Your task to perform on an android device: change alarm snooze length Image 0: 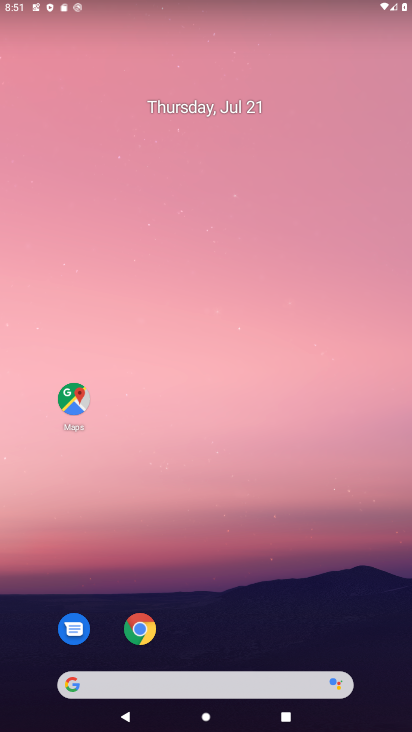
Step 0: drag from (196, 662) to (223, 6)
Your task to perform on an android device: change alarm snooze length Image 1: 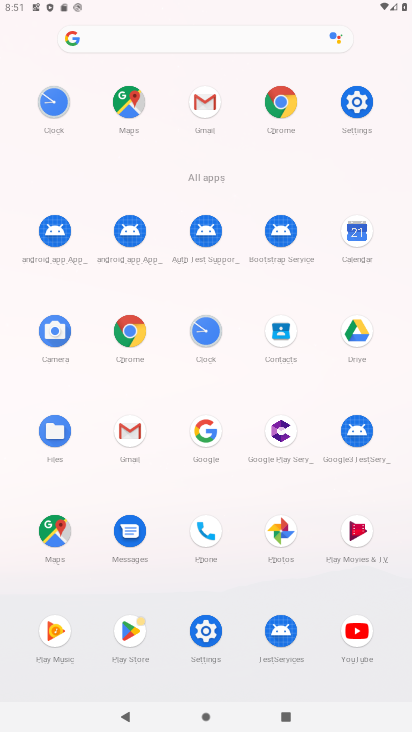
Step 1: click (368, 102)
Your task to perform on an android device: change alarm snooze length Image 2: 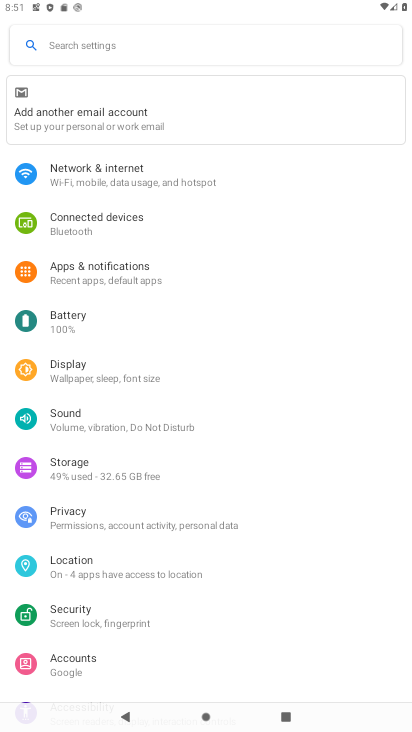
Step 2: press back button
Your task to perform on an android device: change alarm snooze length Image 3: 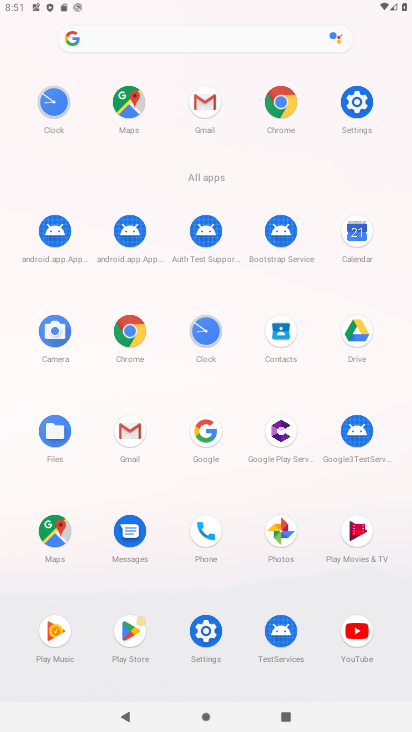
Step 3: click (191, 345)
Your task to perform on an android device: change alarm snooze length Image 4: 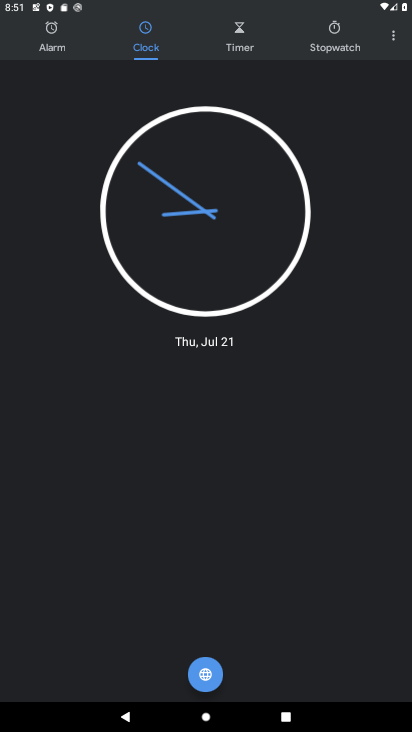
Step 4: click (396, 51)
Your task to perform on an android device: change alarm snooze length Image 5: 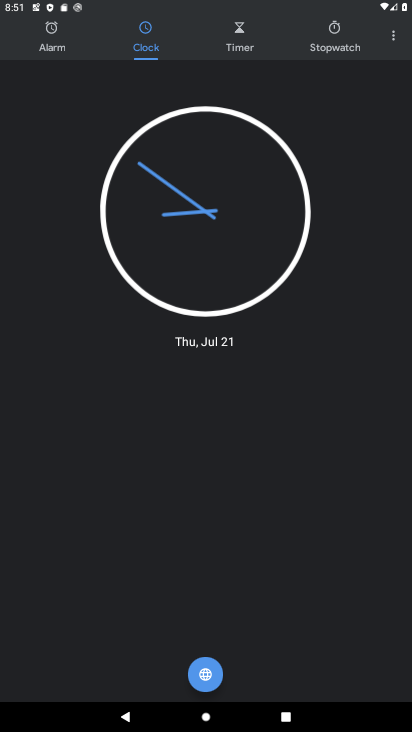
Step 5: click (396, 38)
Your task to perform on an android device: change alarm snooze length Image 6: 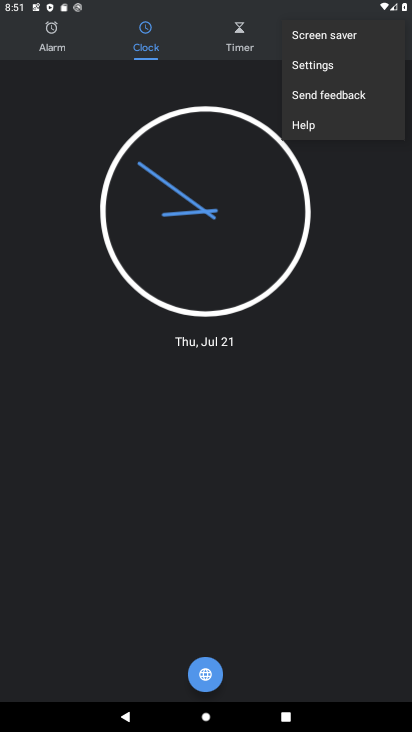
Step 6: click (346, 65)
Your task to perform on an android device: change alarm snooze length Image 7: 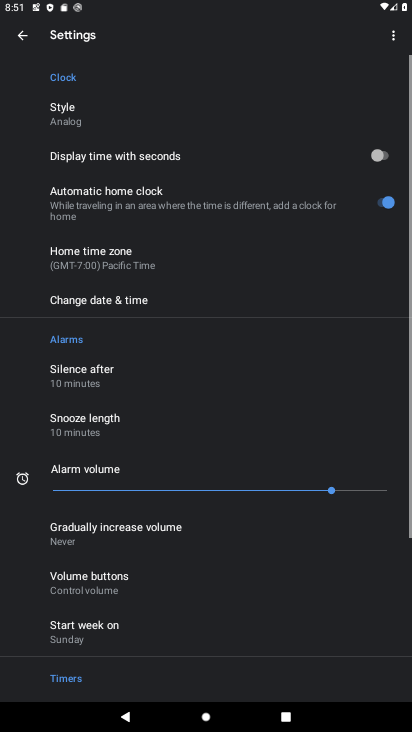
Step 7: click (346, 65)
Your task to perform on an android device: change alarm snooze length Image 8: 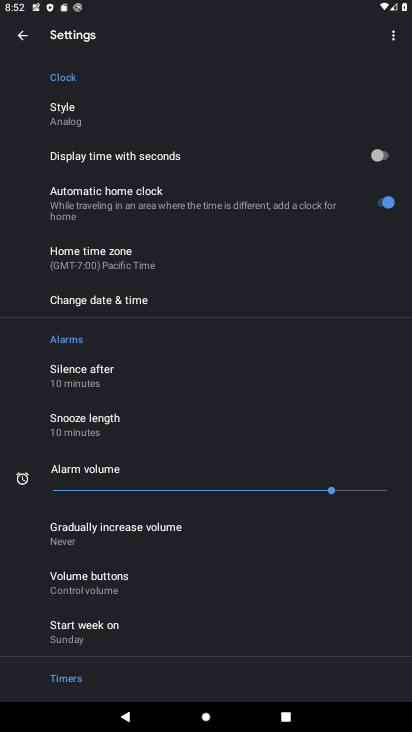
Step 8: click (168, 433)
Your task to perform on an android device: change alarm snooze length Image 9: 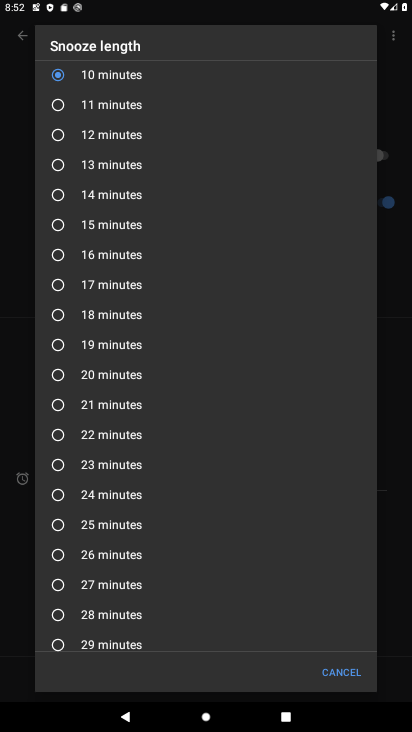
Step 9: click (63, 617)
Your task to perform on an android device: change alarm snooze length Image 10: 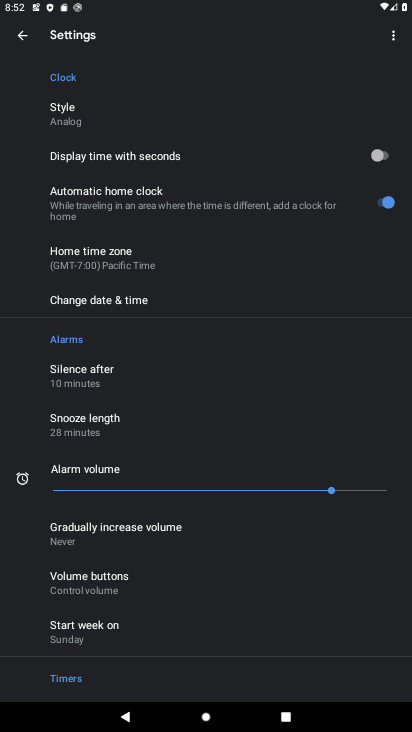
Step 10: task complete